Your task to perform on an android device: Go to accessibility settings Image 0: 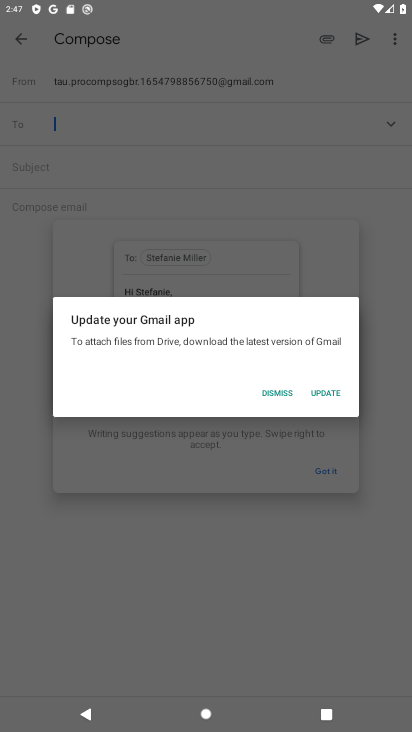
Step 0: press home button
Your task to perform on an android device: Go to accessibility settings Image 1: 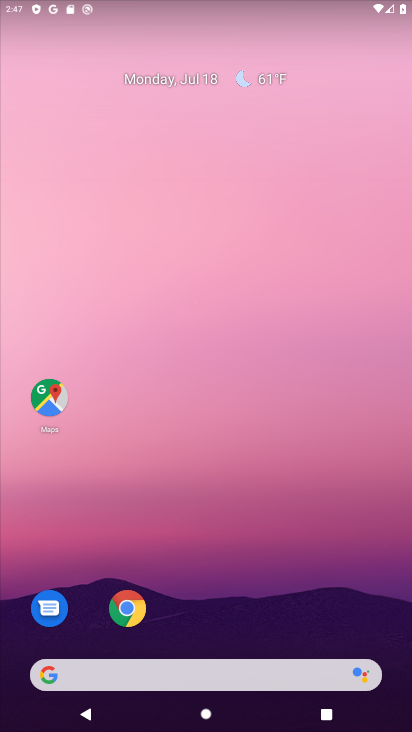
Step 1: drag from (286, 568) to (268, 70)
Your task to perform on an android device: Go to accessibility settings Image 2: 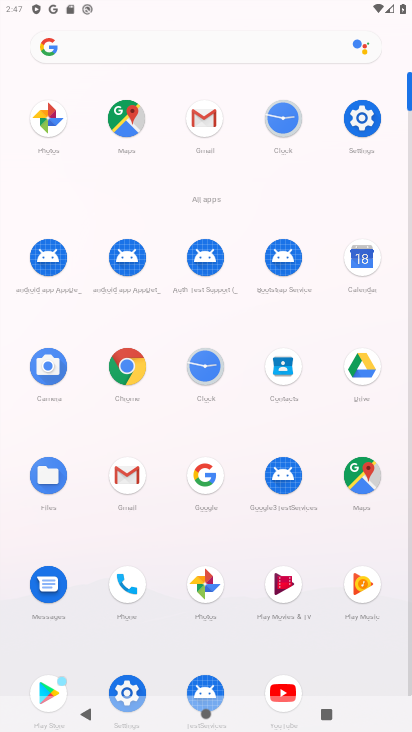
Step 2: click (355, 127)
Your task to perform on an android device: Go to accessibility settings Image 3: 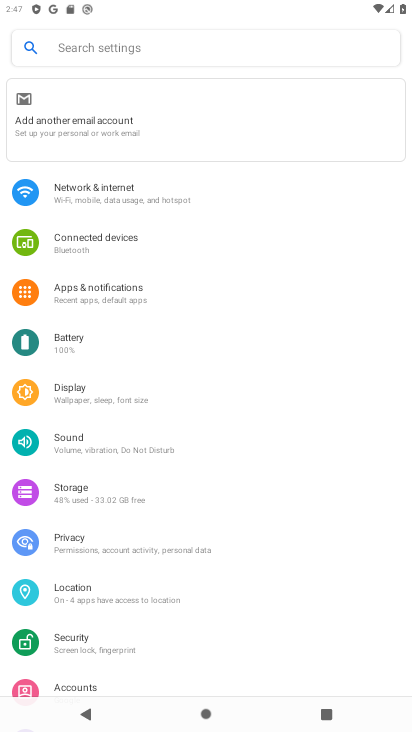
Step 3: drag from (154, 534) to (146, 47)
Your task to perform on an android device: Go to accessibility settings Image 4: 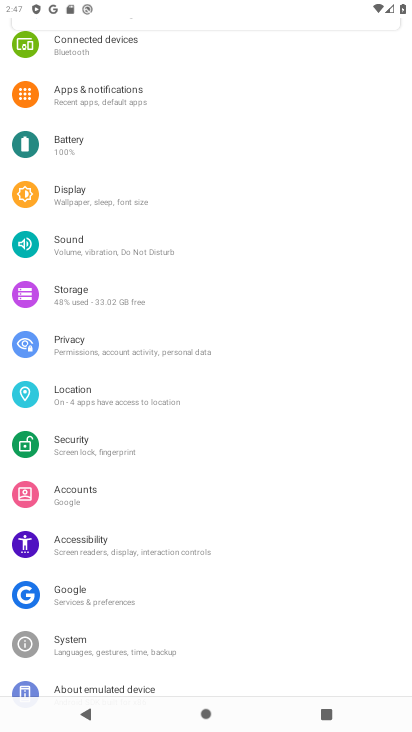
Step 4: click (82, 537)
Your task to perform on an android device: Go to accessibility settings Image 5: 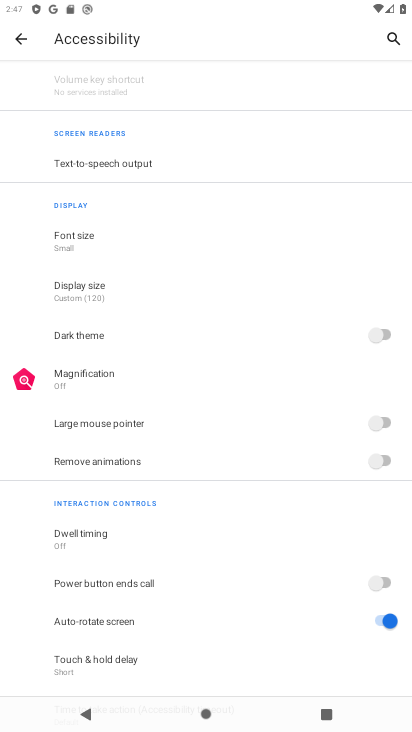
Step 5: task complete